Your task to perform on an android device: turn on the 24-hour format for clock Image 0: 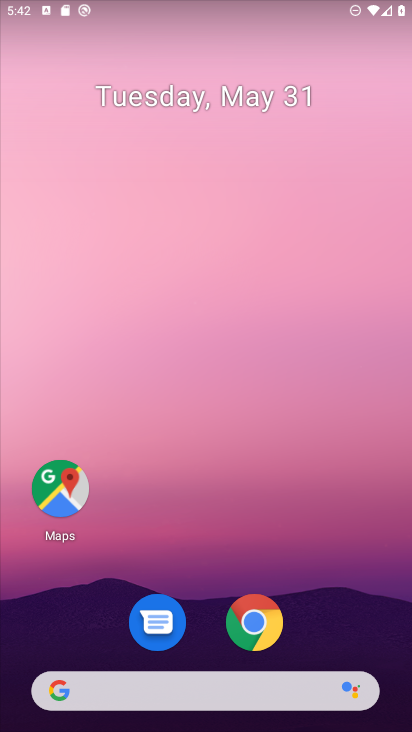
Step 0: drag from (345, 684) to (390, 72)
Your task to perform on an android device: turn on the 24-hour format for clock Image 1: 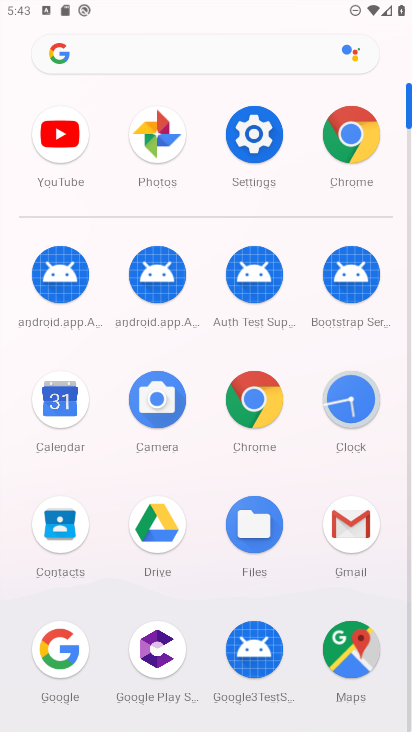
Step 1: click (356, 414)
Your task to perform on an android device: turn on the 24-hour format for clock Image 2: 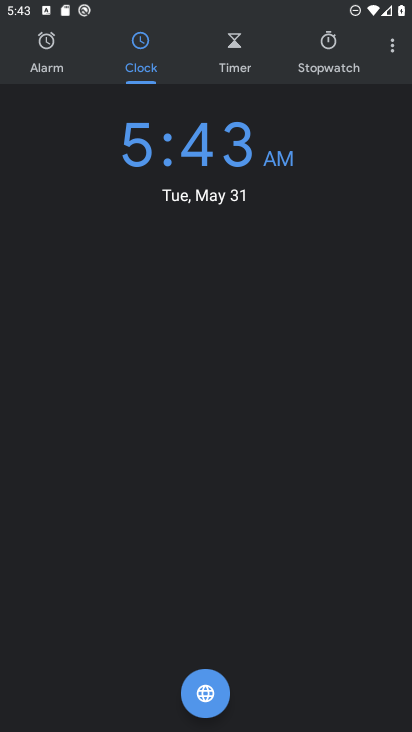
Step 2: click (385, 50)
Your task to perform on an android device: turn on the 24-hour format for clock Image 3: 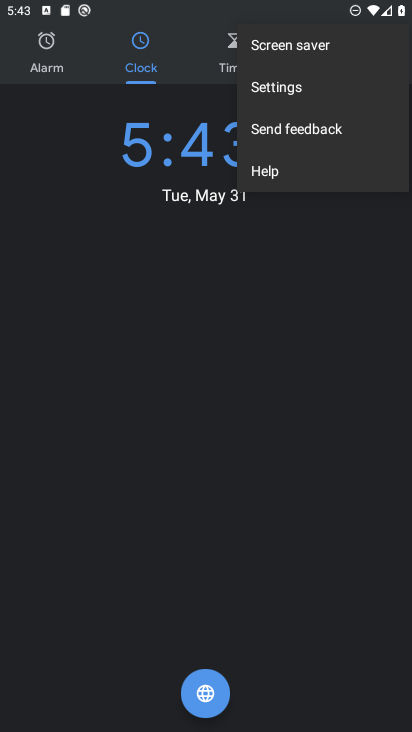
Step 3: click (327, 87)
Your task to perform on an android device: turn on the 24-hour format for clock Image 4: 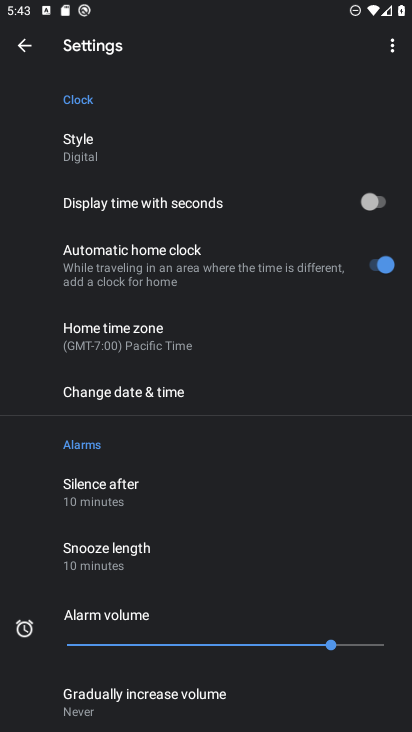
Step 4: click (246, 381)
Your task to perform on an android device: turn on the 24-hour format for clock Image 5: 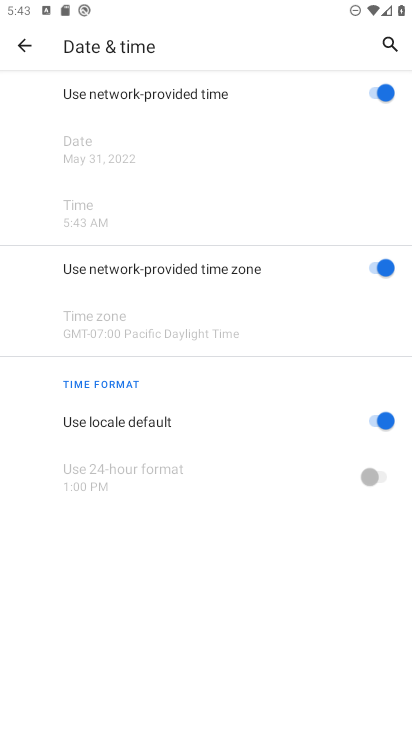
Step 5: click (383, 423)
Your task to perform on an android device: turn on the 24-hour format for clock Image 6: 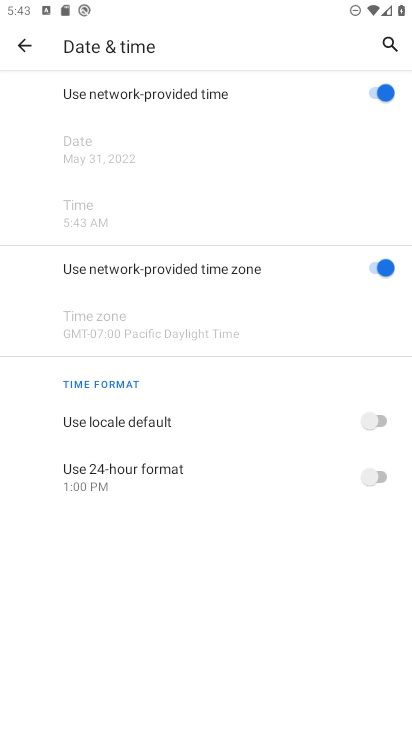
Step 6: click (377, 475)
Your task to perform on an android device: turn on the 24-hour format for clock Image 7: 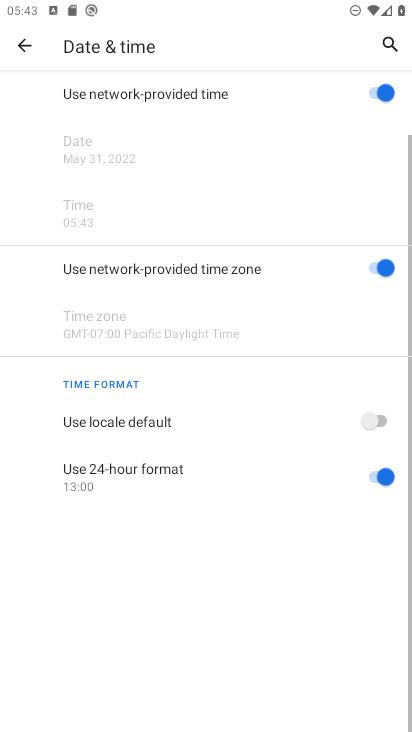
Step 7: task complete